Your task to perform on an android device: Go to Google Image 0: 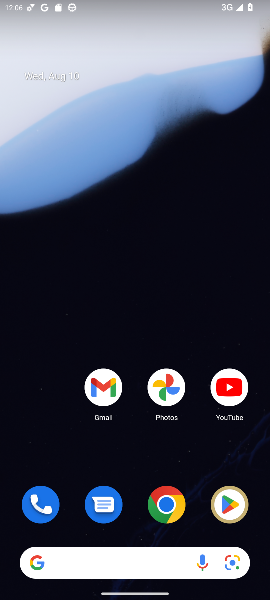
Step 0: press home button
Your task to perform on an android device: Go to Google Image 1: 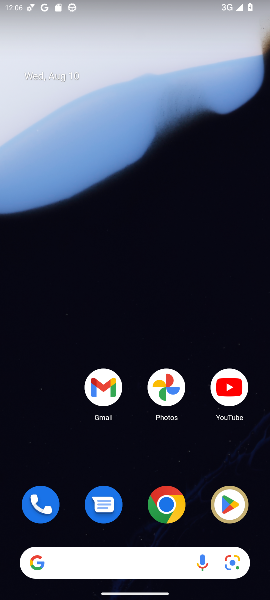
Step 1: click (32, 565)
Your task to perform on an android device: Go to Google Image 2: 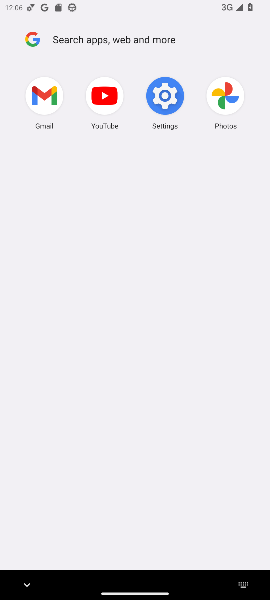
Step 2: click (34, 37)
Your task to perform on an android device: Go to Google Image 3: 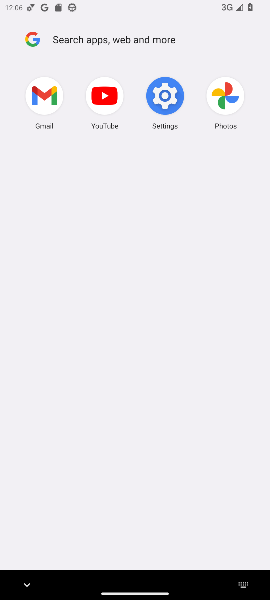
Step 3: task complete